Your task to perform on an android device: open device folders in google photos Image 0: 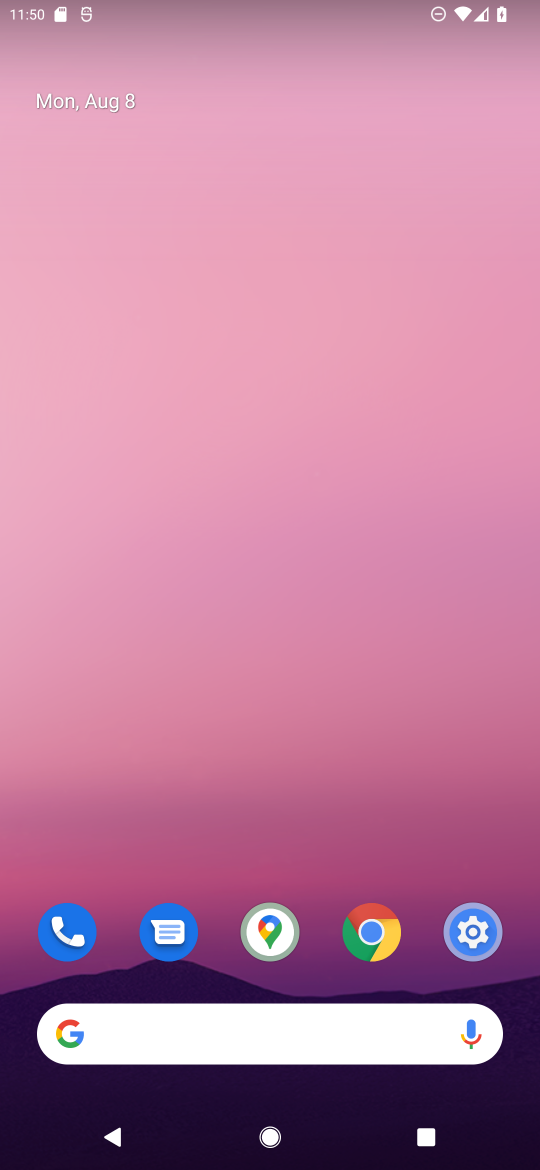
Step 0: drag from (310, 780) to (295, 277)
Your task to perform on an android device: open device folders in google photos Image 1: 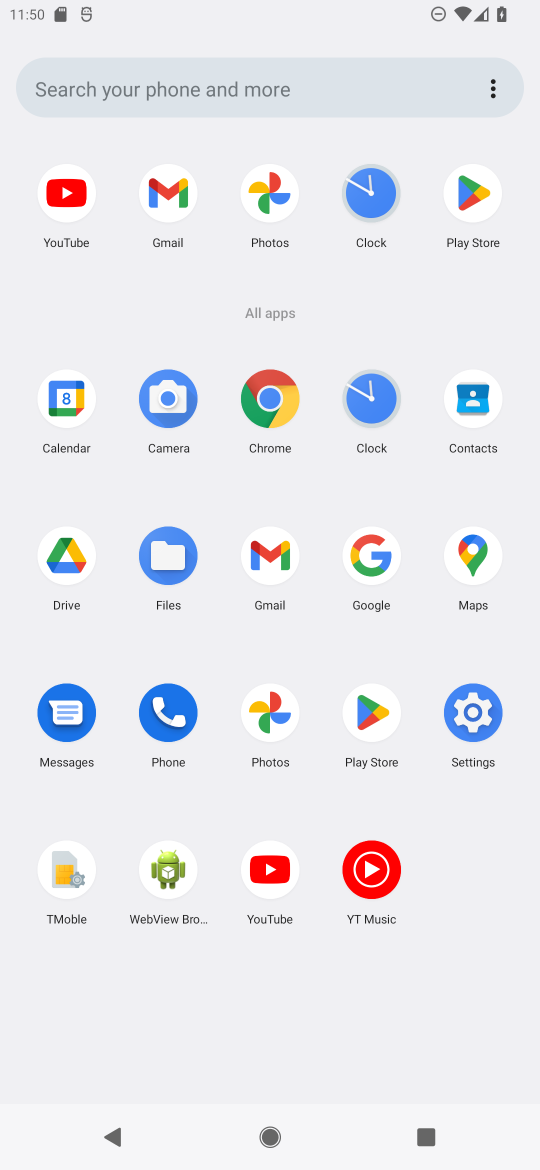
Step 1: click (272, 190)
Your task to perform on an android device: open device folders in google photos Image 2: 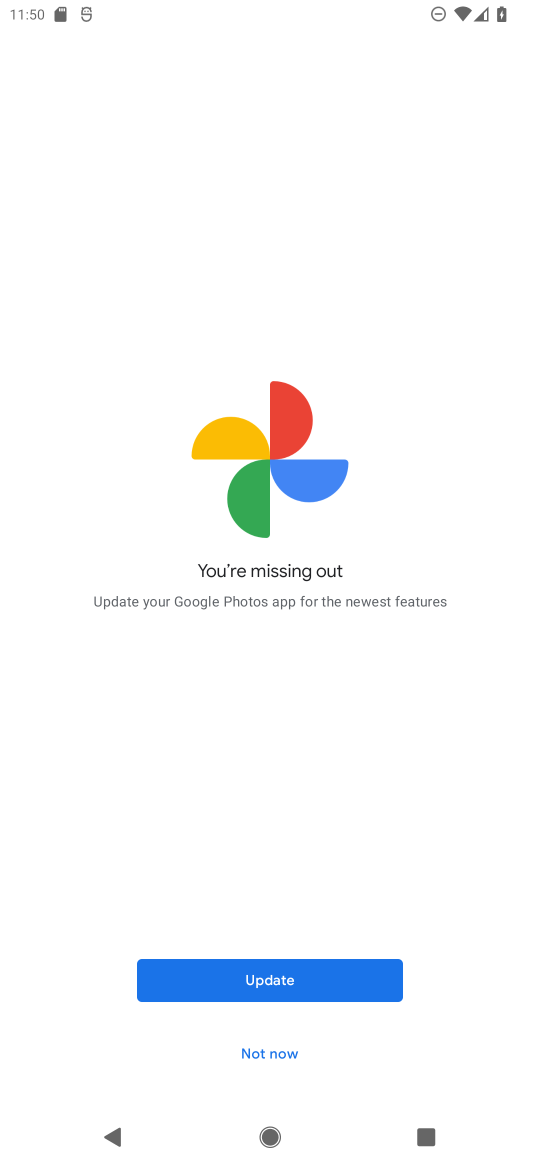
Step 2: click (203, 979)
Your task to perform on an android device: open device folders in google photos Image 3: 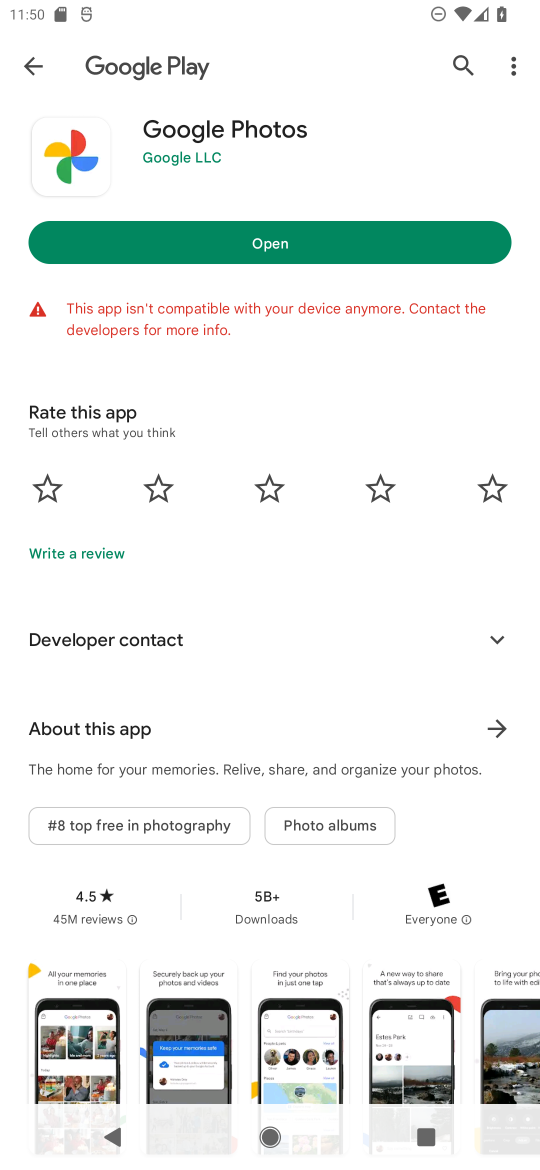
Step 3: press home button
Your task to perform on an android device: open device folders in google photos Image 4: 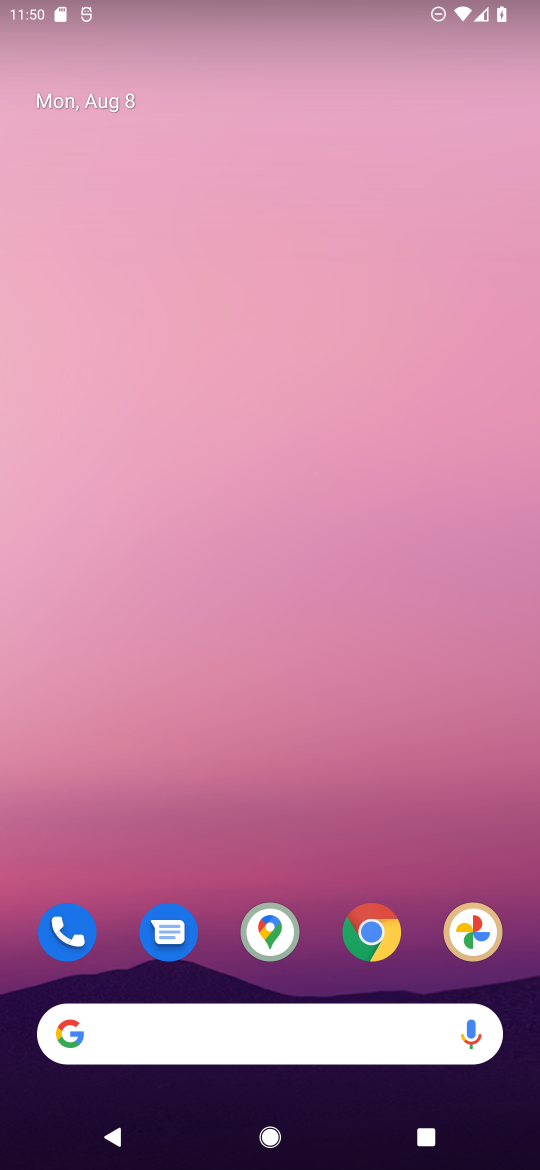
Step 4: click (461, 931)
Your task to perform on an android device: open device folders in google photos Image 5: 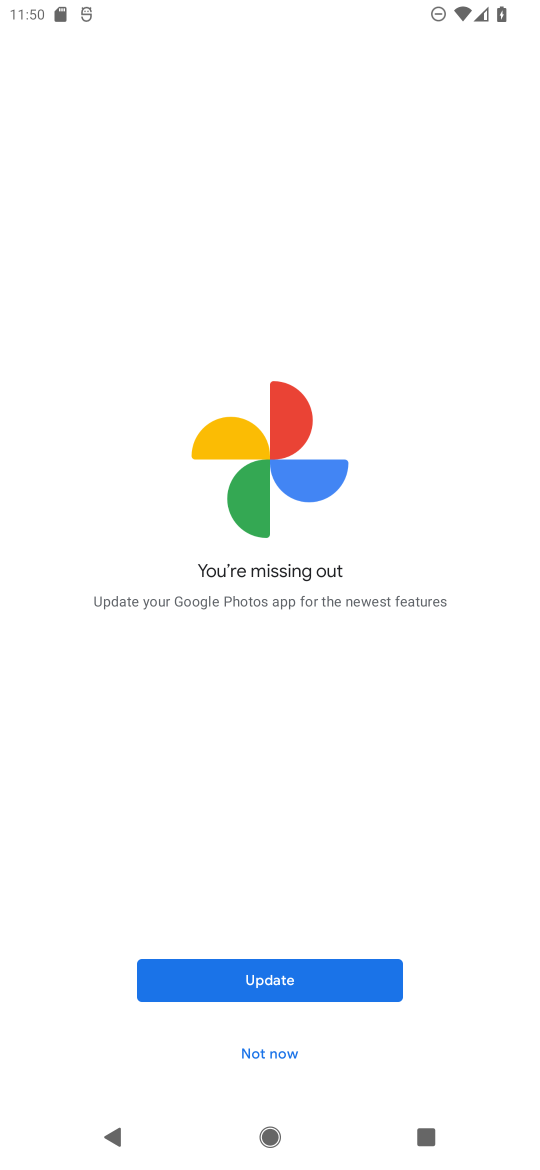
Step 5: click (252, 1062)
Your task to perform on an android device: open device folders in google photos Image 6: 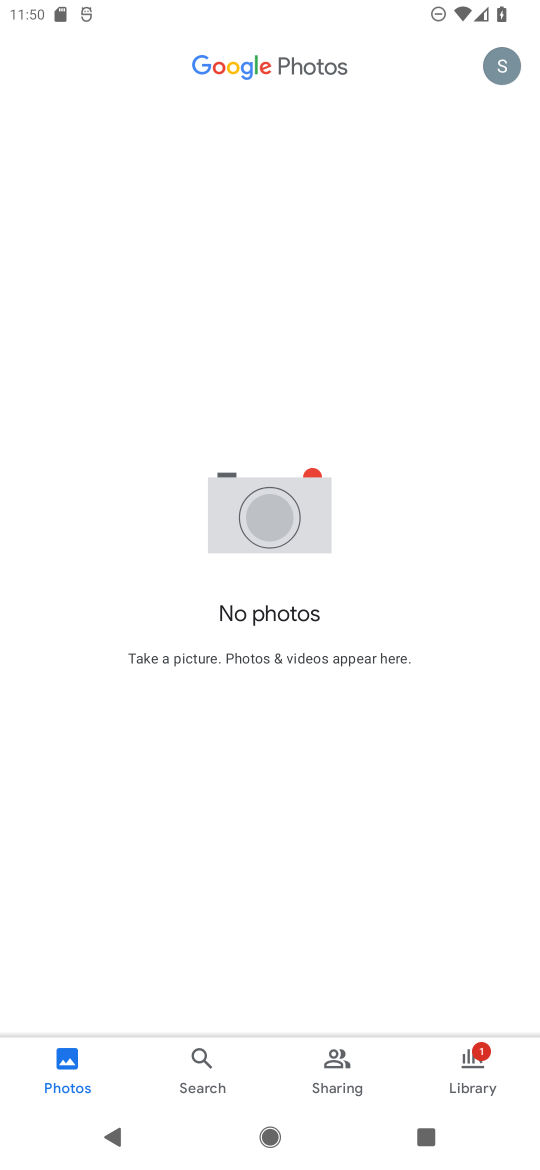
Step 6: click (496, 83)
Your task to perform on an android device: open device folders in google photos Image 7: 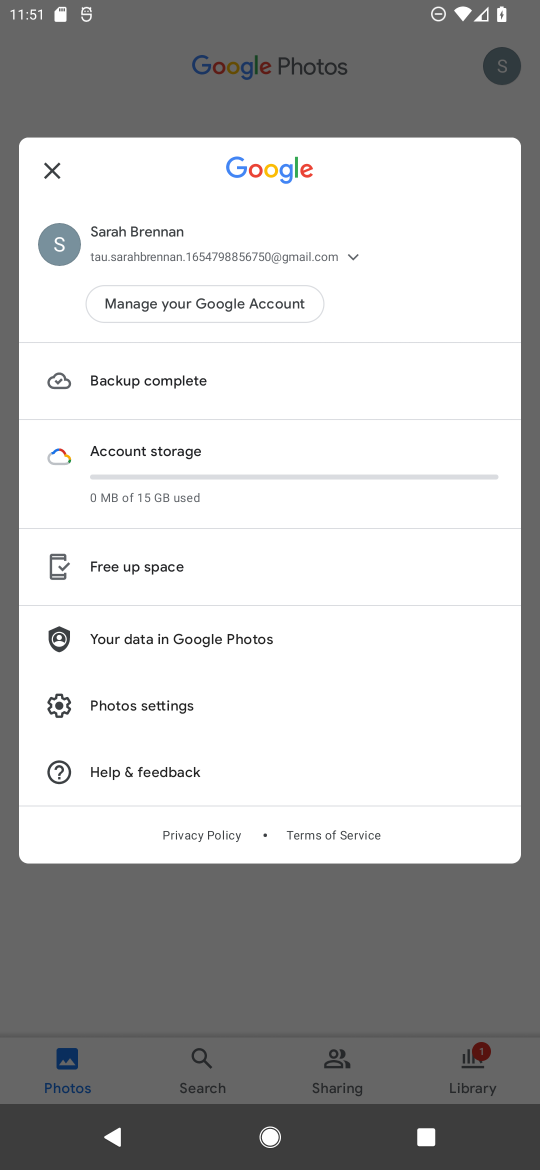
Step 7: task complete